Your task to perform on an android device: read, delete, or share a saved page in the chrome app Image 0: 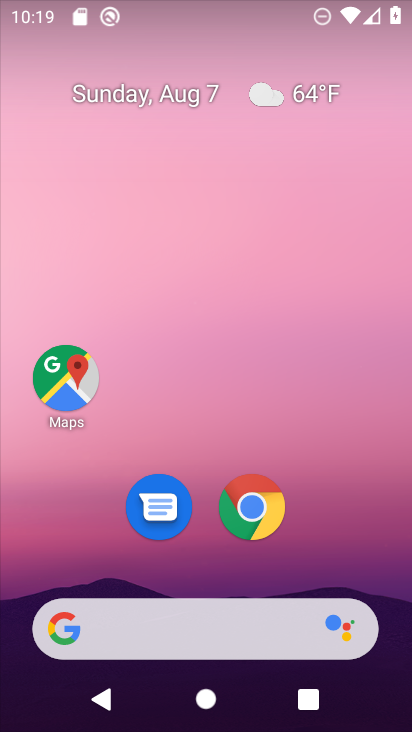
Step 0: click (347, 513)
Your task to perform on an android device: read, delete, or share a saved page in the chrome app Image 1: 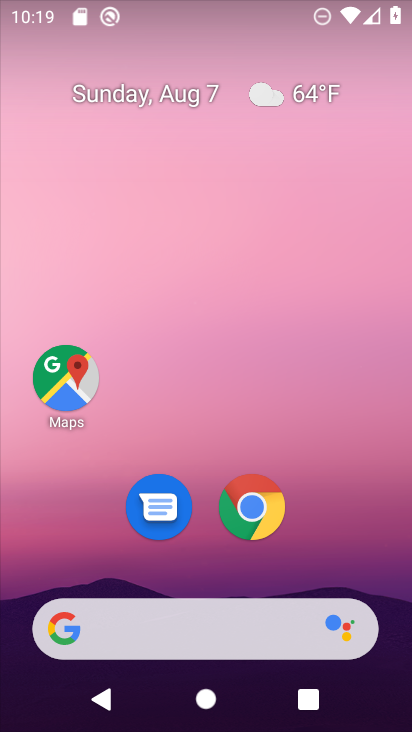
Step 1: drag from (344, 542) to (328, 23)
Your task to perform on an android device: read, delete, or share a saved page in the chrome app Image 2: 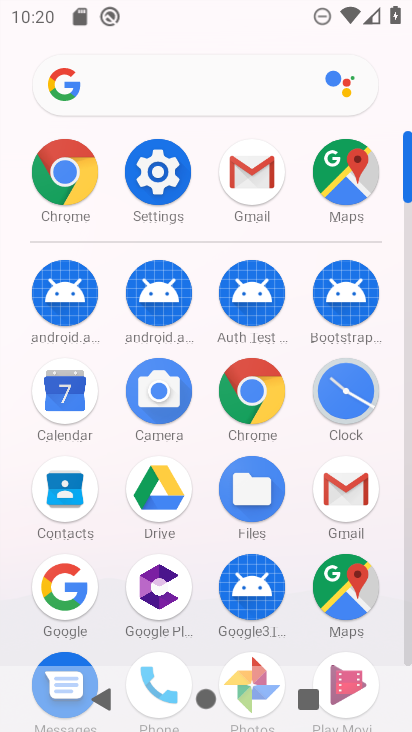
Step 2: click (250, 393)
Your task to perform on an android device: read, delete, or share a saved page in the chrome app Image 3: 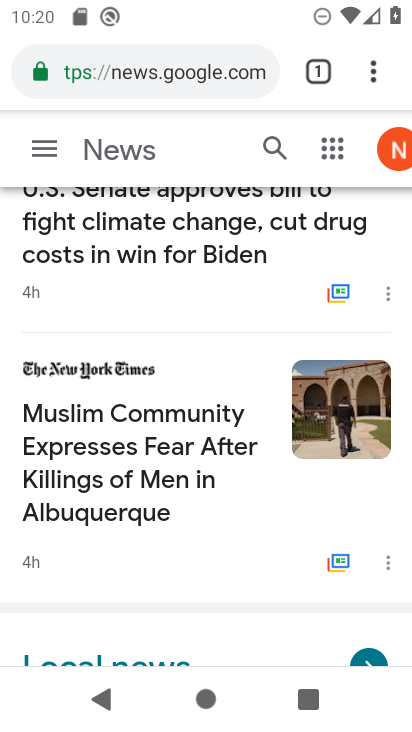
Step 3: task complete